Your task to perform on an android device: delete the emails in spam in the gmail app Image 0: 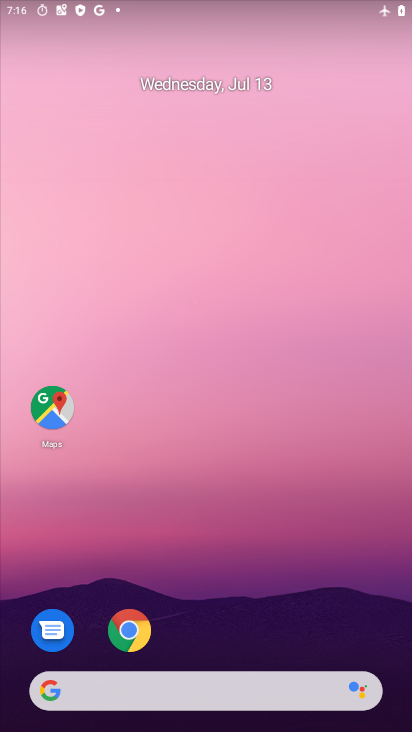
Step 0: drag from (258, 641) to (211, 0)
Your task to perform on an android device: delete the emails in spam in the gmail app Image 1: 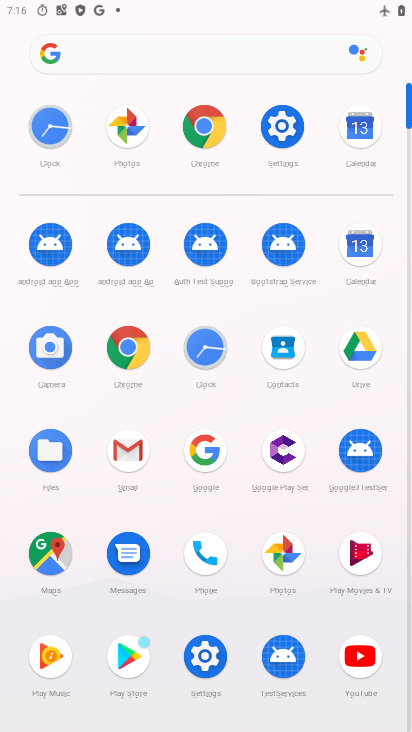
Step 1: click (203, 448)
Your task to perform on an android device: delete the emails in spam in the gmail app Image 2: 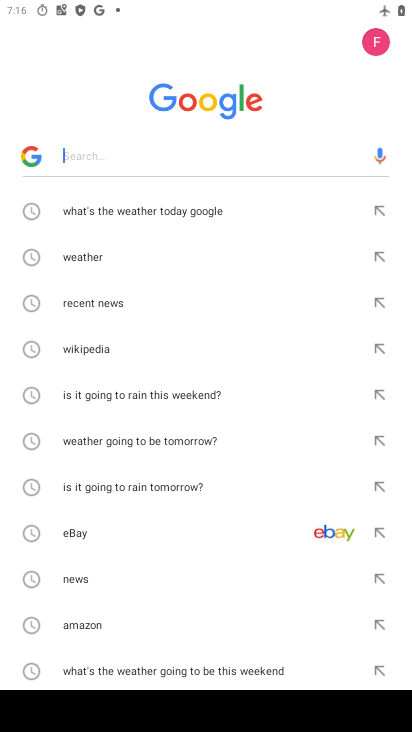
Step 2: press home button
Your task to perform on an android device: delete the emails in spam in the gmail app Image 3: 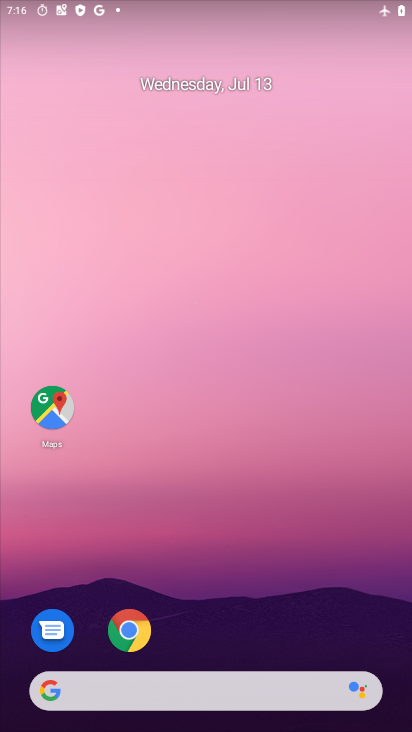
Step 3: drag from (233, 635) to (233, 36)
Your task to perform on an android device: delete the emails in spam in the gmail app Image 4: 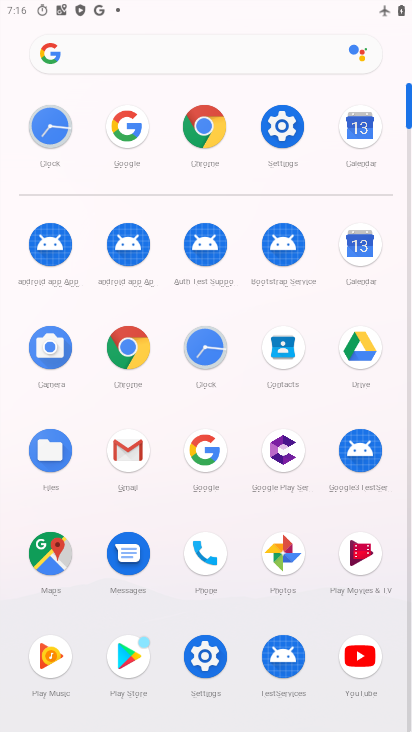
Step 4: click (131, 452)
Your task to perform on an android device: delete the emails in spam in the gmail app Image 5: 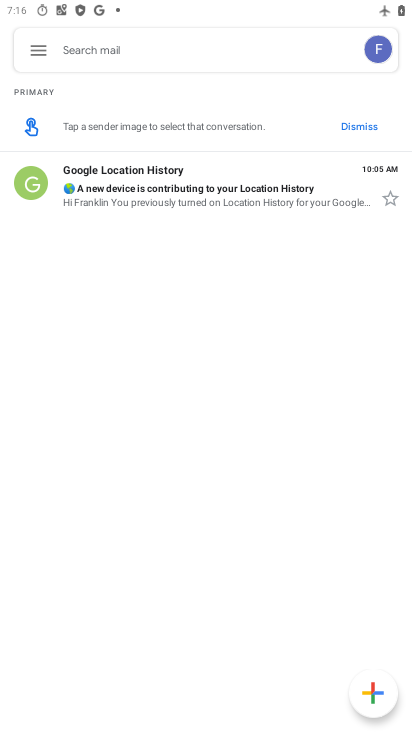
Step 5: click (23, 40)
Your task to perform on an android device: delete the emails in spam in the gmail app Image 6: 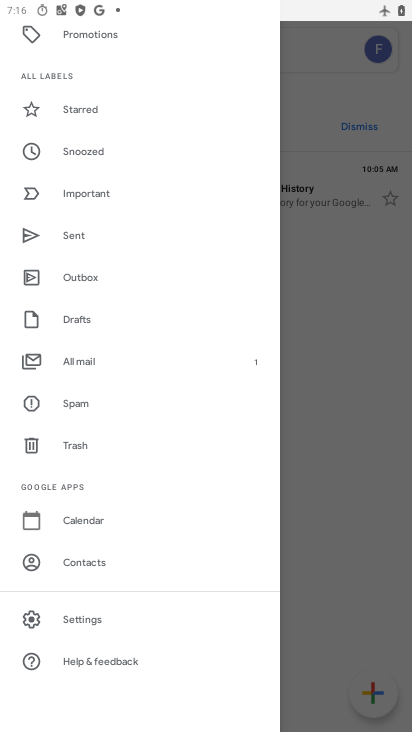
Step 6: click (92, 395)
Your task to perform on an android device: delete the emails in spam in the gmail app Image 7: 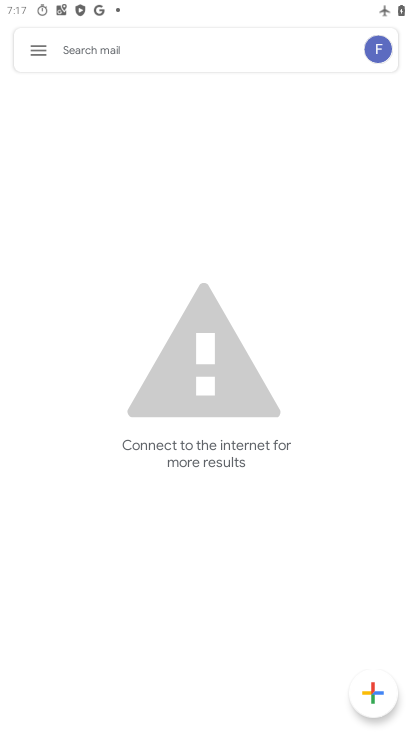
Step 7: task complete